Your task to perform on an android device: Open settings Image 0: 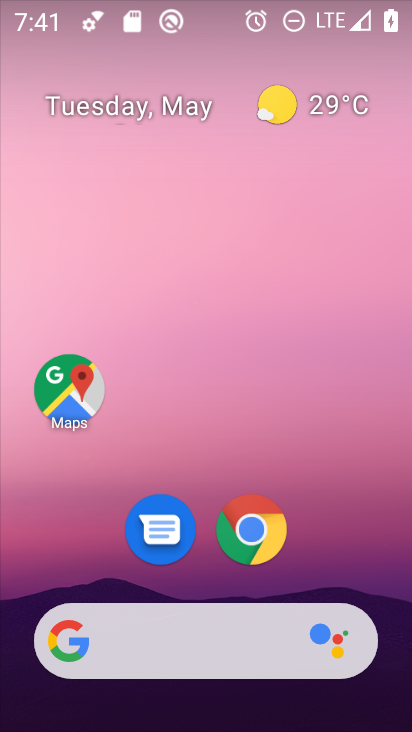
Step 0: drag from (383, 546) to (246, 150)
Your task to perform on an android device: Open settings Image 1: 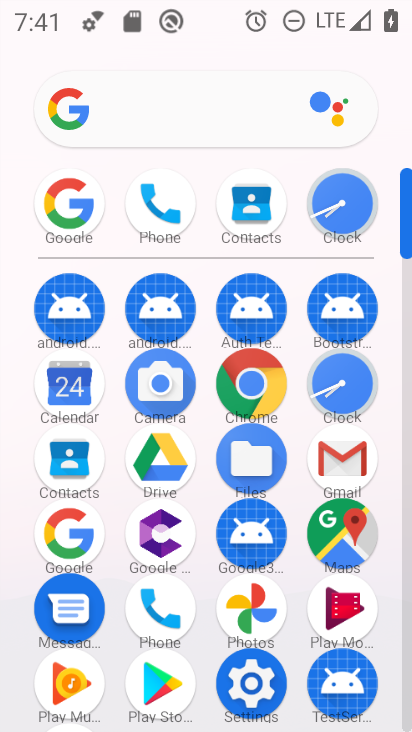
Step 1: click (256, 693)
Your task to perform on an android device: Open settings Image 2: 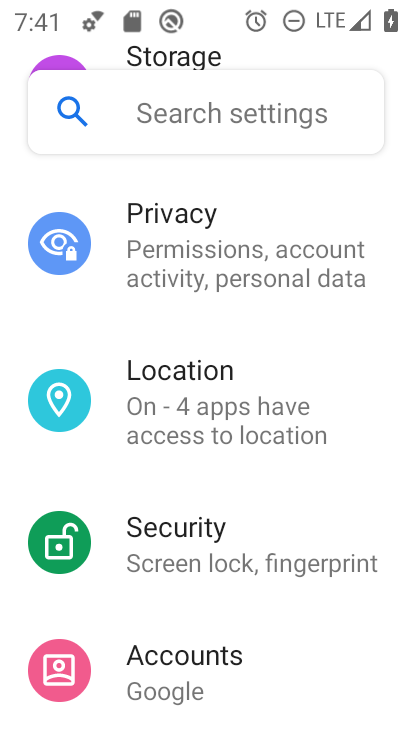
Step 2: task complete